Your task to perform on an android device: turn on translation in the chrome app Image 0: 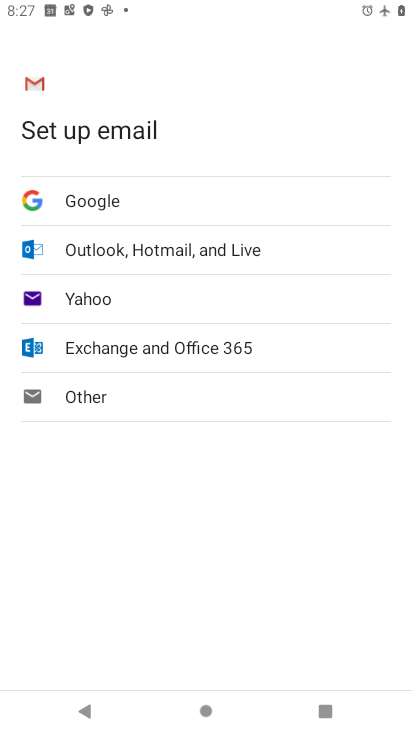
Step 0: press home button
Your task to perform on an android device: turn on translation in the chrome app Image 1: 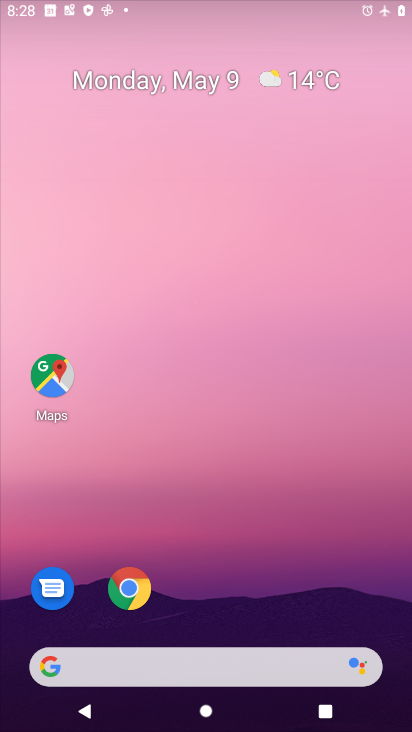
Step 1: drag from (328, 521) to (186, 40)
Your task to perform on an android device: turn on translation in the chrome app Image 2: 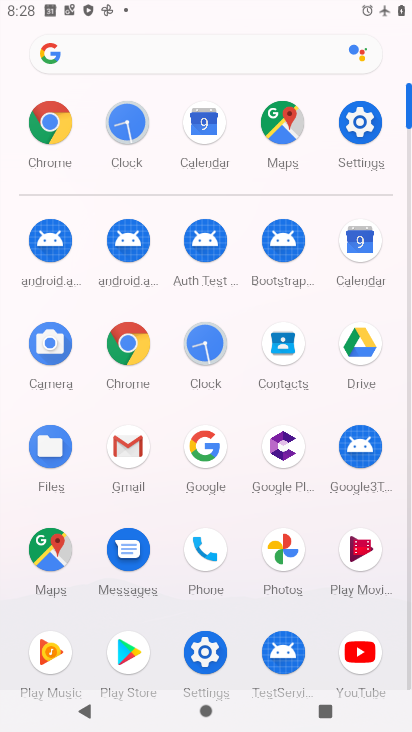
Step 2: click (135, 350)
Your task to perform on an android device: turn on translation in the chrome app Image 3: 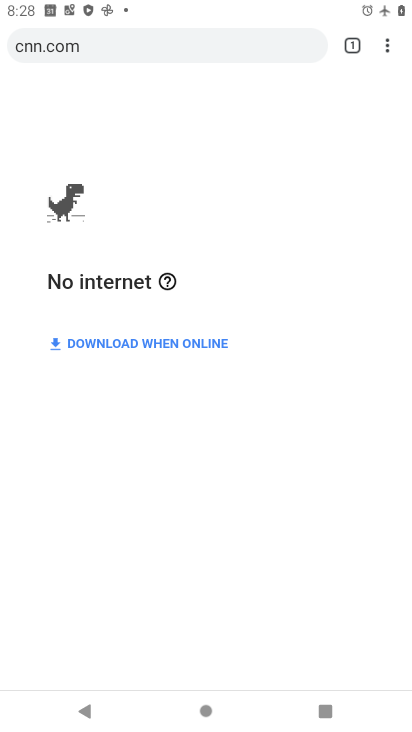
Step 3: click (386, 45)
Your task to perform on an android device: turn on translation in the chrome app Image 4: 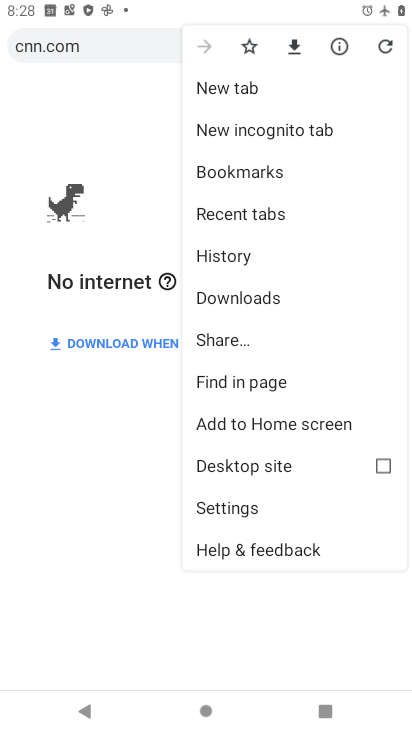
Step 4: click (253, 521)
Your task to perform on an android device: turn on translation in the chrome app Image 5: 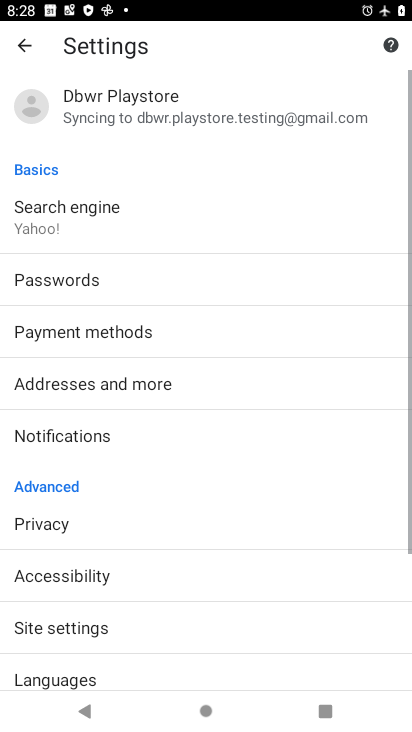
Step 5: click (122, 670)
Your task to perform on an android device: turn on translation in the chrome app Image 6: 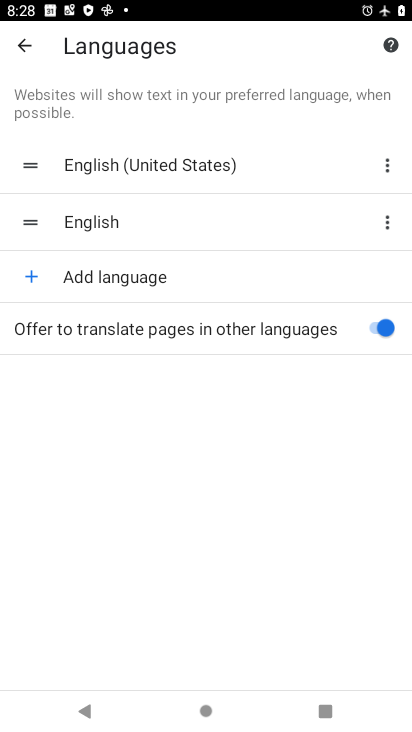
Step 6: task complete